Your task to perform on an android device: Toggle the flashlight Image 0: 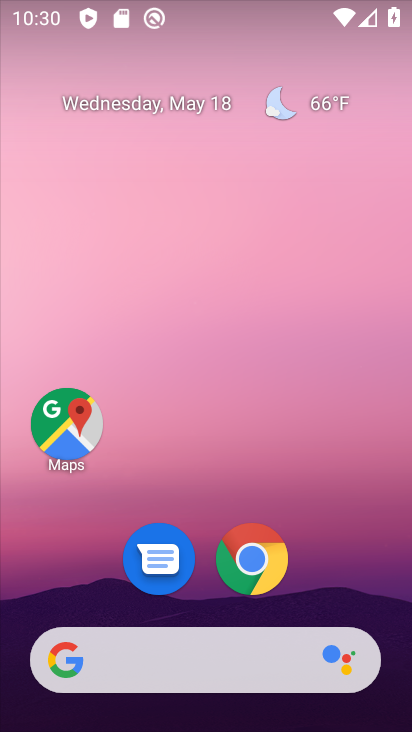
Step 0: task impossible